Your task to perform on an android device: Open Maps and search for coffee Image 0: 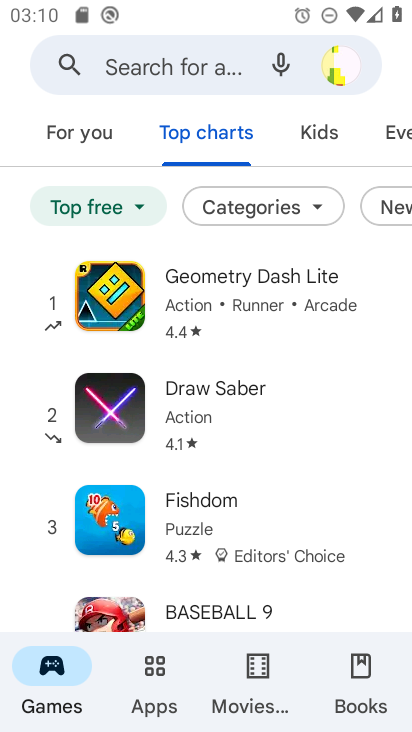
Step 0: press home button
Your task to perform on an android device: Open Maps and search for coffee Image 1: 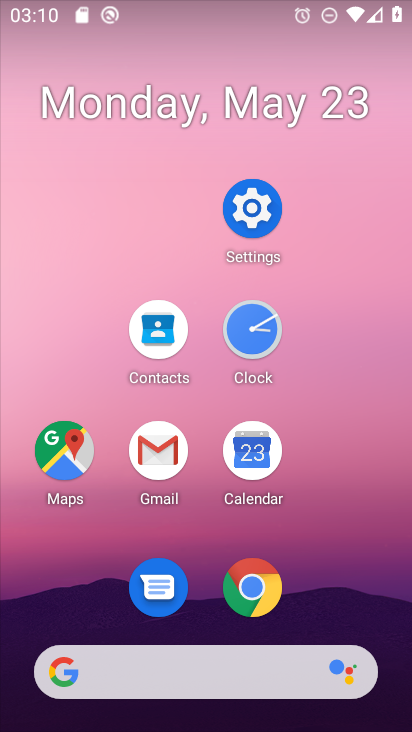
Step 1: click (82, 482)
Your task to perform on an android device: Open Maps and search for coffee Image 2: 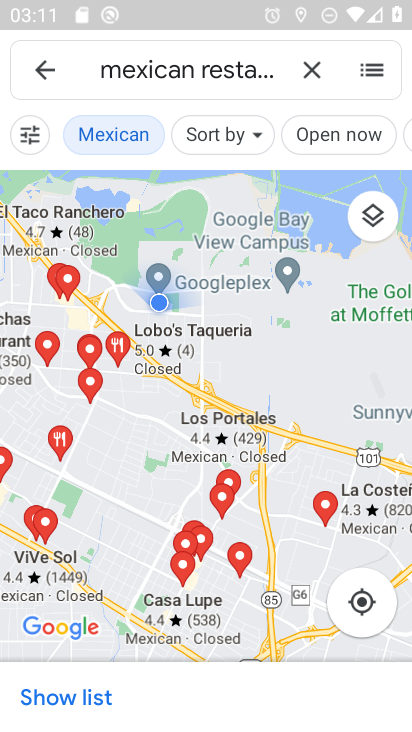
Step 2: click (306, 67)
Your task to perform on an android device: Open Maps and search for coffee Image 3: 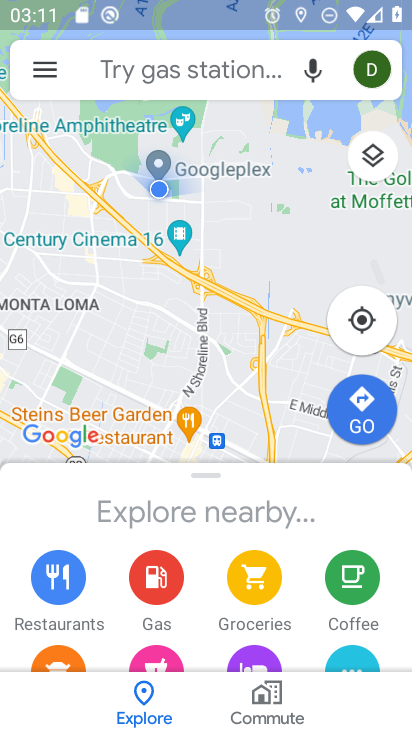
Step 3: click (203, 67)
Your task to perform on an android device: Open Maps and search for coffee Image 4: 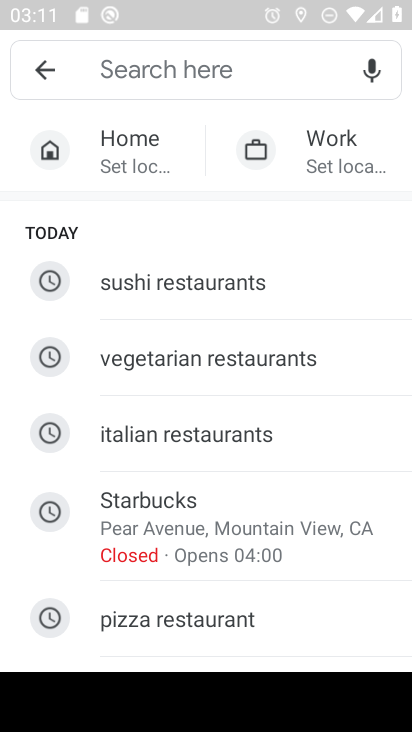
Step 4: click (230, 524)
Your task to perform on an android device: Open Maps and search for coffee Image 5: 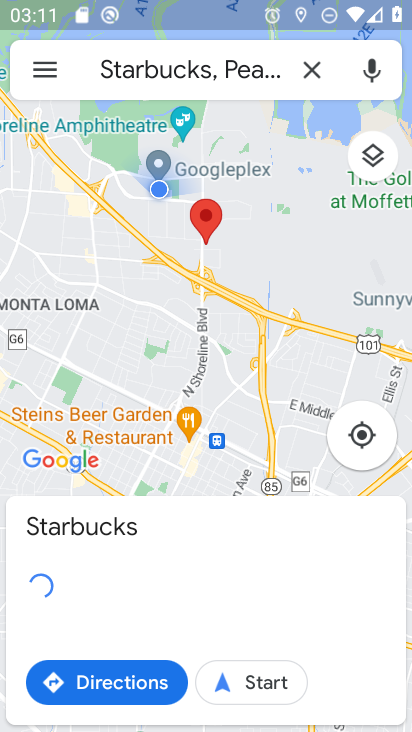
Step 5: task complete